Your task to perform on an android device: turn off translation in the chrome app Image 0: 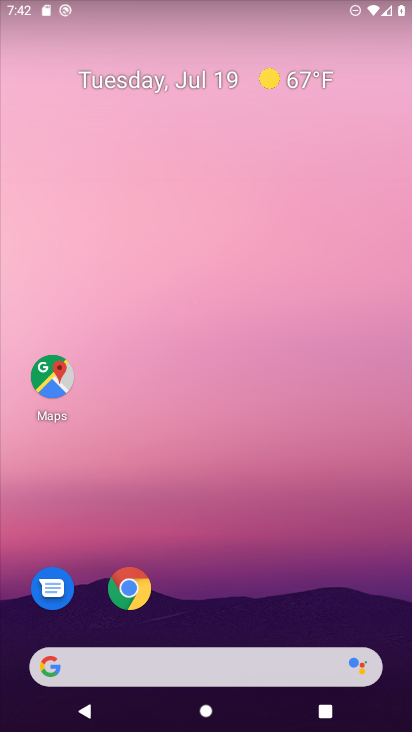
Step 0: drag from (353, 586) to (366, 116)
Your task to perform on an android device: turn off translation in the chrome app Image 1: 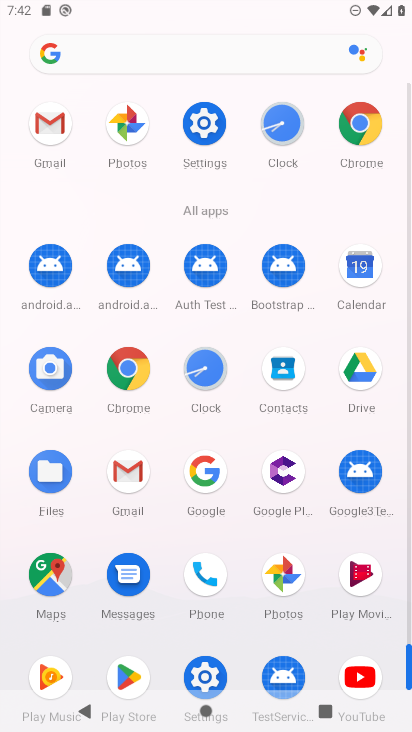
Step 1: click (366, 125)
Your task to perform on an android device: turn off translation in the chrome app Image 2: 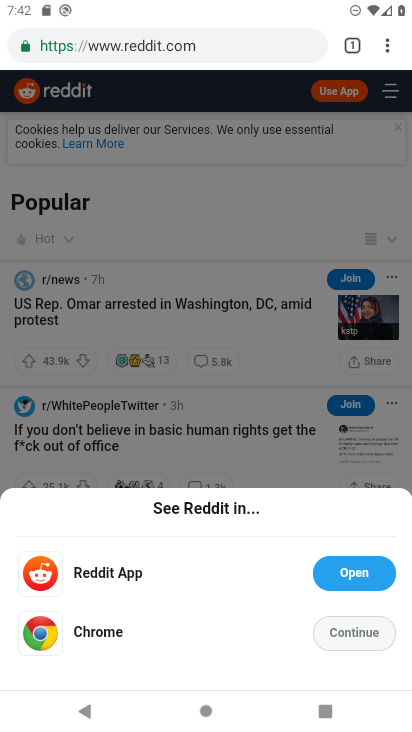
Step 2: click (383, 47)
Your task to perform on an android device: turn off translation in the chrome app Image 3: 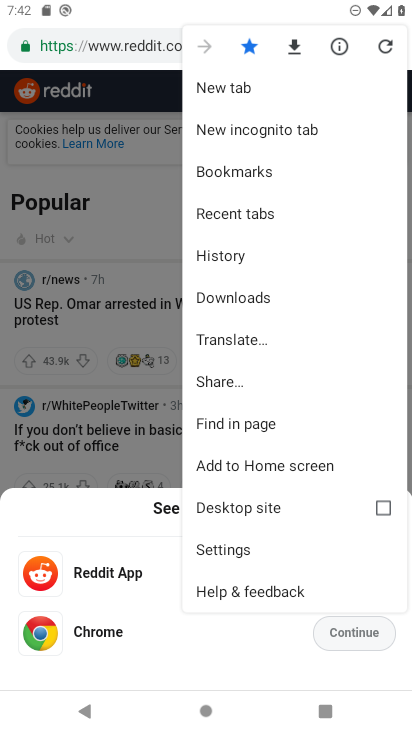
Step 3: click (241, 551)
Your task to perform on an android device: turn off translation in the chrome app Image 4: 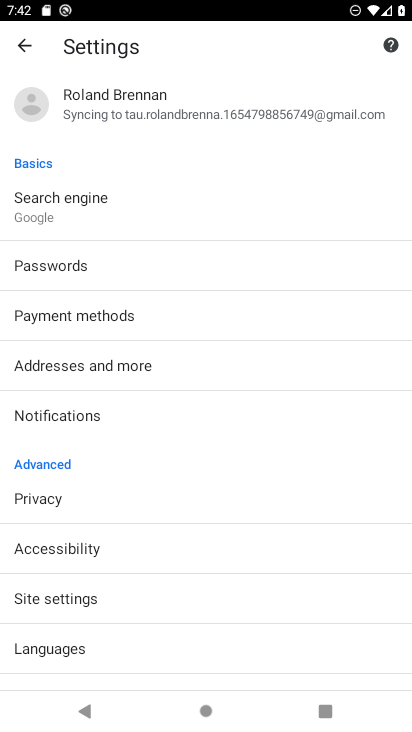
Step 4: drag from (299, 587) to (305, 517)
Your task to perform on an android device: turn off translation in the chrome app Image 5: 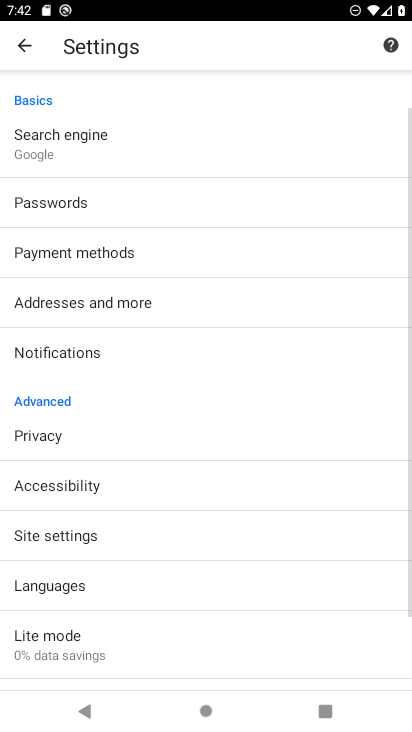
Step 5: drag from (320, 637) to (321, 538)
Your task to perform on an android device: turn off translation in the chrome app Image 6: 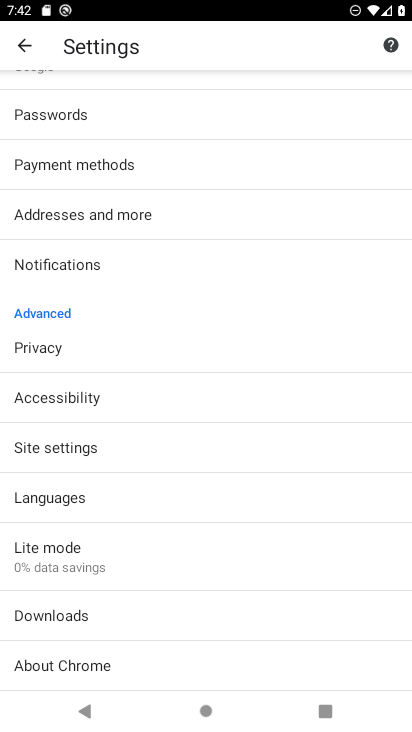
Step 6: click (264, 496)
Your task to perform on an android device: turn off translation in the chrome app Image 7: 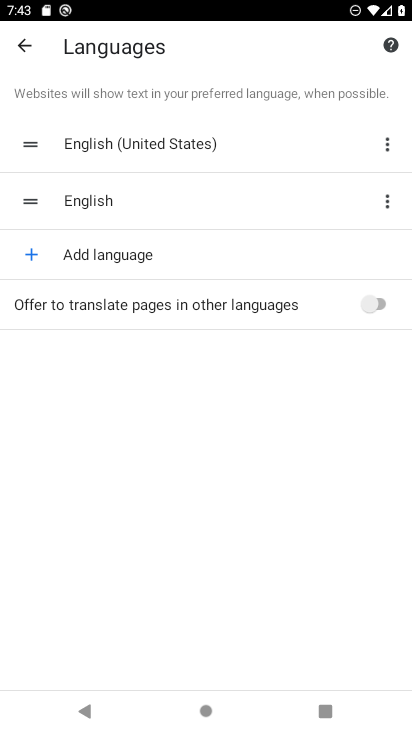
Step 7: task complete